Your task to perform on an android device: change the clock display to digital Image 0: 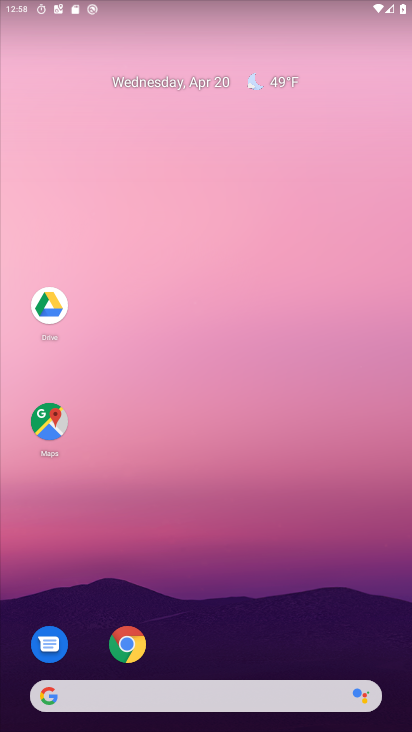
Step 0: drag from (222, 508) to (222, 179)
Your task to perform on an android device: change the clock display to digital Image 1: 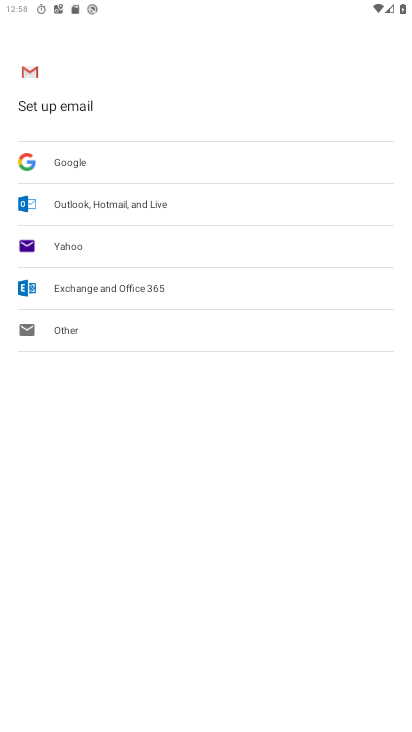
Step 1: press home button
Your task to perform on an android device: change the clock display to digital Image 2: 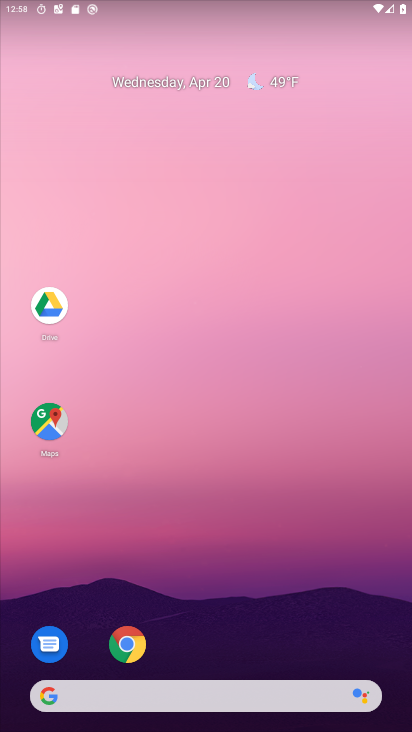
Step 2: drag from (217, 645) to (220, 93)
Your task to perform on an android device: change the clock display to digital Image 3: 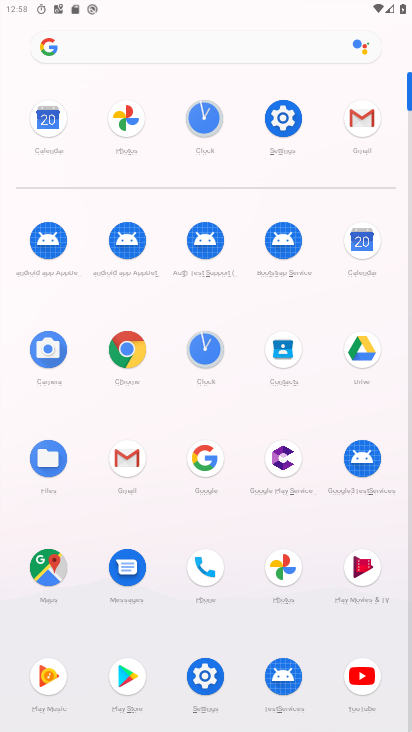
Step 3: click (201, 121)
Your task to perform on an android device: change the clock display to digital Image 4: 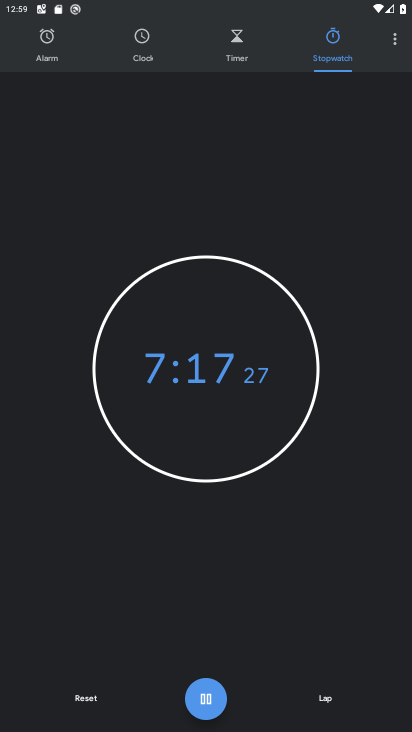
Step 4: click (394, 44)
Your task to perform on an android device: change the clock display to digital Image 5: 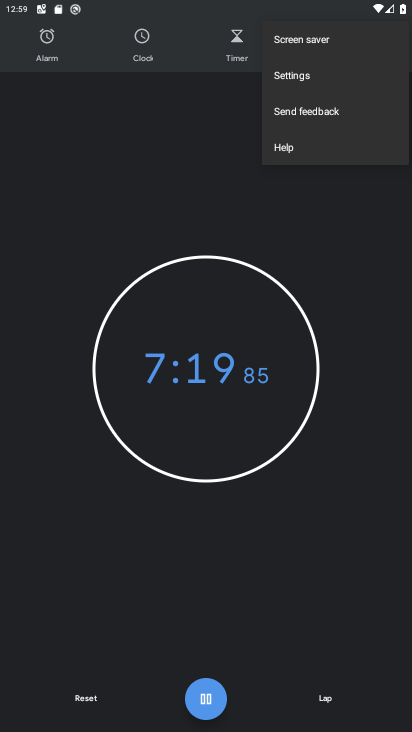
Step 5: click (291, 79)
Your task to perform on an android device: change the clock display to digital Image 6: 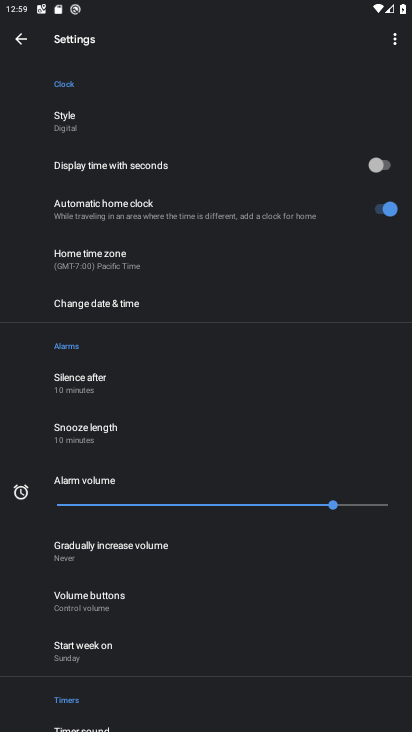
Step 6: click (152, 125)
Your task to perform on an android device: change the clock display to digital Image 7: 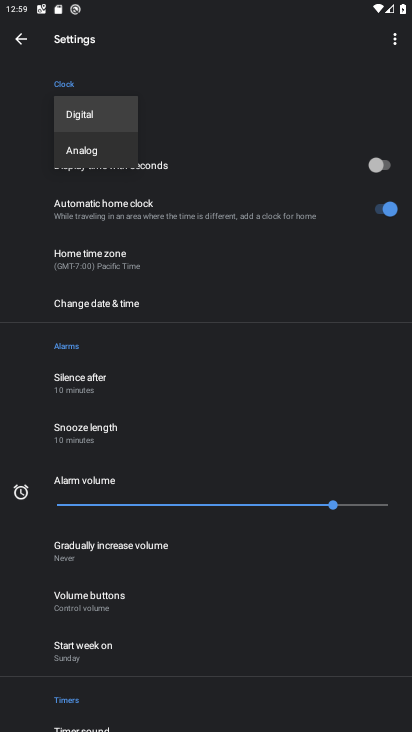
Step 7: task complete